Your task to perform on an android device: turn off picture-in-picture Image 0: 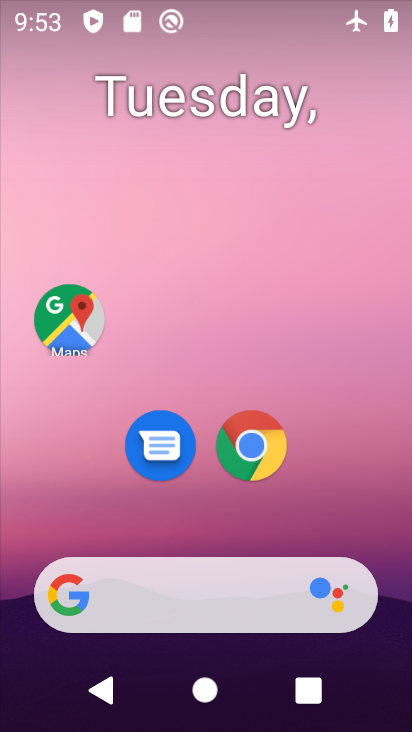
Step 0: click (265, 458)
Your task to perform on an android device: turn off picture-in-picture Image 1: 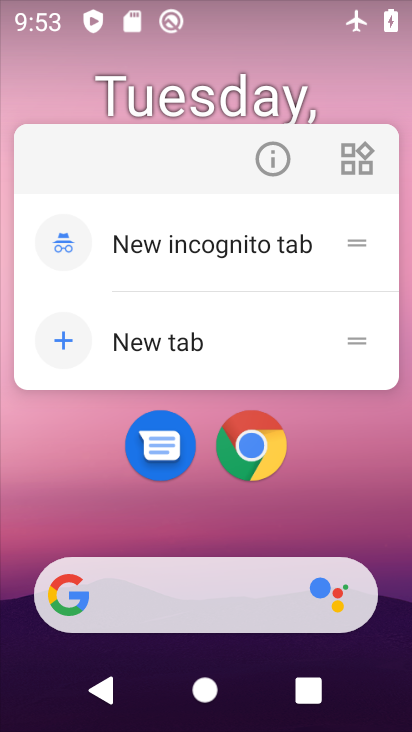
Step 1: click (278, 162)
Your task to perform on an android device: turn off picture-in-picture Image 2: 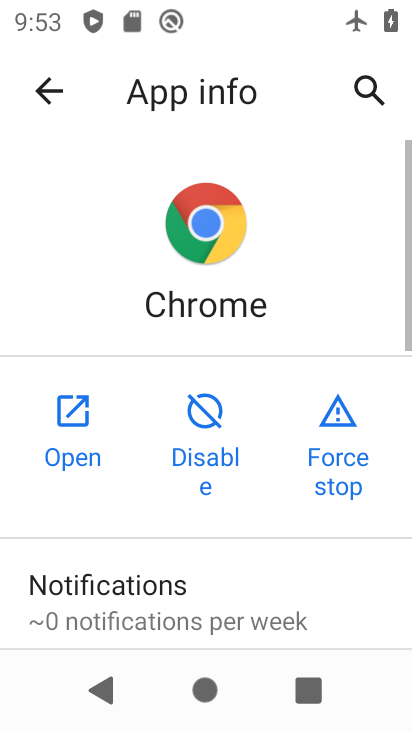
Step 2: drag from (236, 572) to (194, 224)
Your task to perform on an android device: turn off picture-in-picture Image 3: 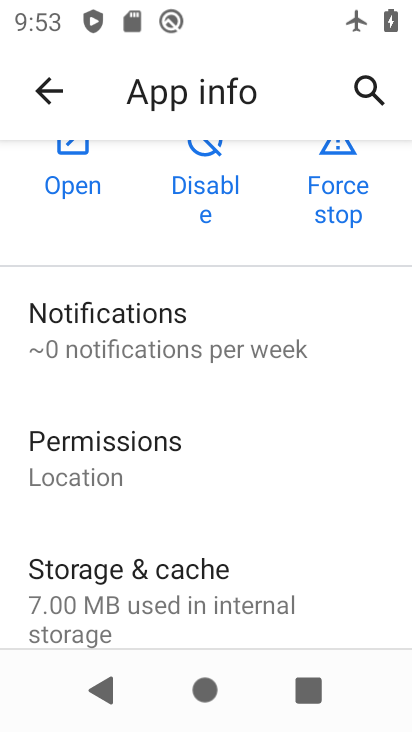
Step 3: drag from (224, 629) to (210, 25)
Your task to perform on an android device: turn off picture-in-picture Image 4: 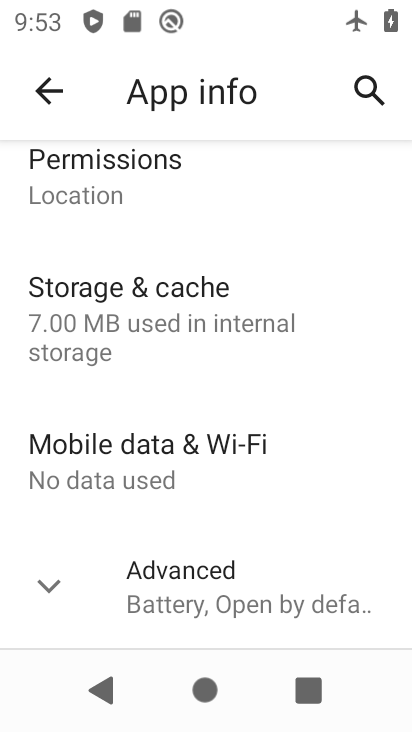
Step 4: click (190, 574)
Your task to perform on an android device: turn off picture-in-picture Image 5: 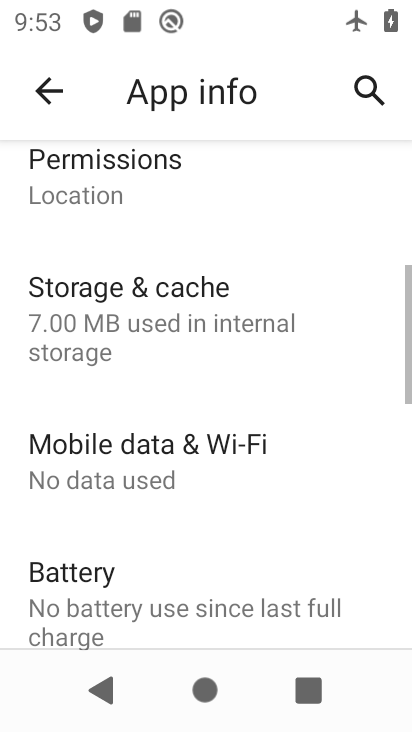
Step 5: drag from (190, 574) to (185, 121)
Your task to perform on an android device: turn off picture-in-picture Image 6: 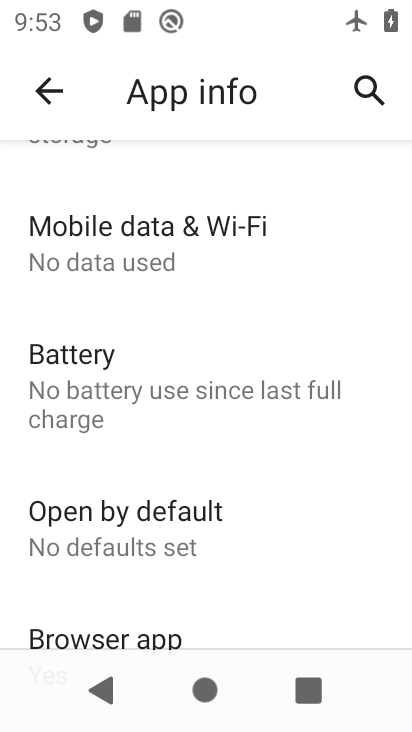
Step 6: drag from (246, 564) to (208, 10)
Your task to perform on an android device: turn off picture-in-picture Image 7: 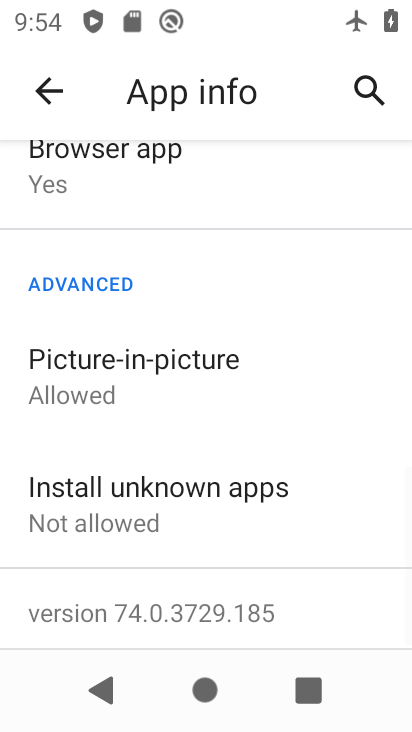
Step 7: click (207, 340)
Your task to perform on an android device: turn off picture-in-picture Image 8: 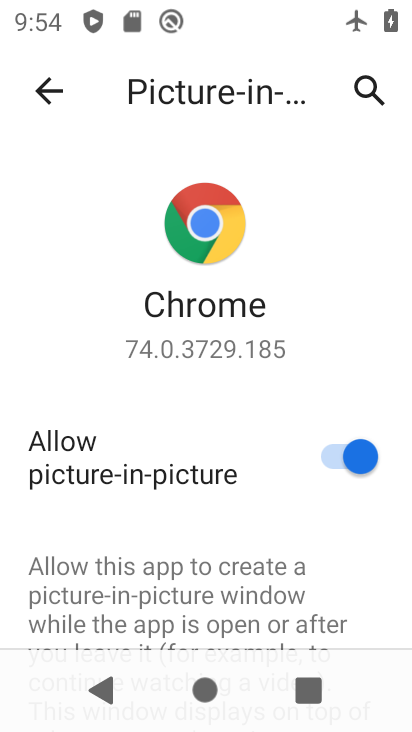
Step 8: click (320, 461)
Your task to perform on an android device: turn off picture-in-picture Image 9: 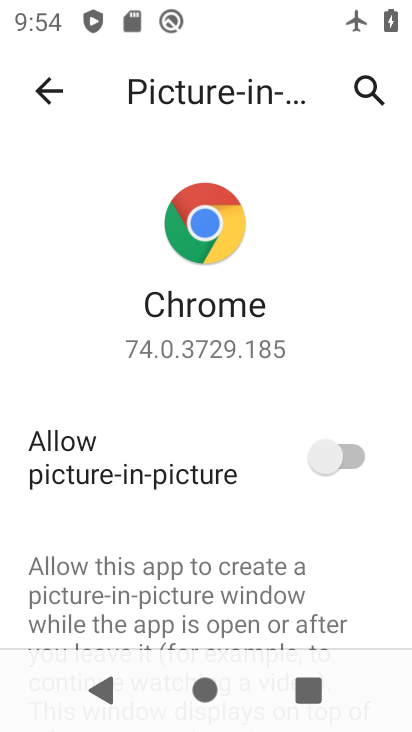
Step 9: task complete